Your task to perform on an android device: empty trash in the gmail app Image 0: 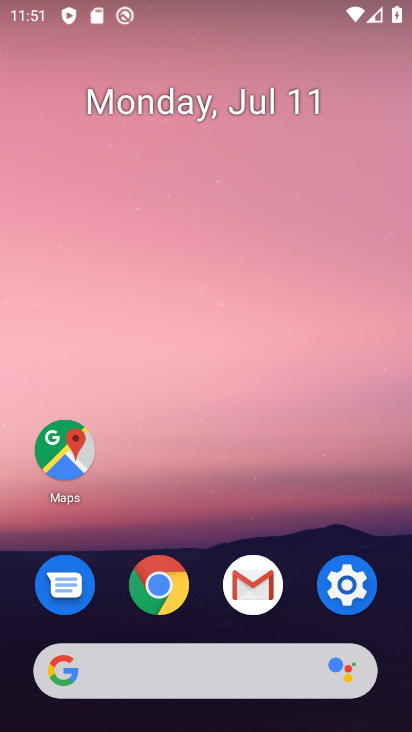
Step 0: click (273, 591)
Your task to perform on an android device: empty trash in the gmail app Image 1: 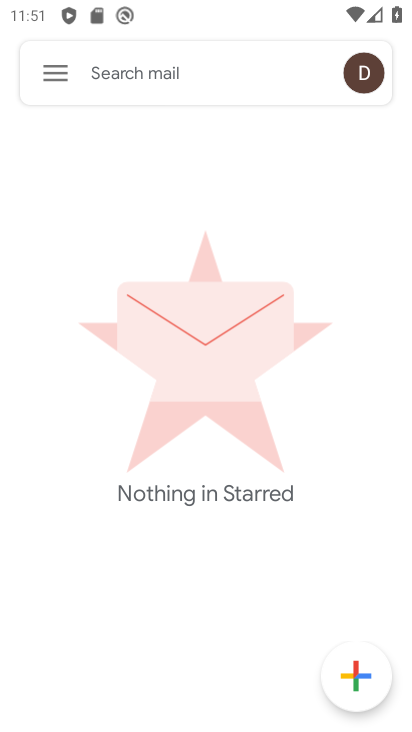
Step 1: click (58, 87)
Your task to perform on an android device: empty trash in the gmail app Image 2: 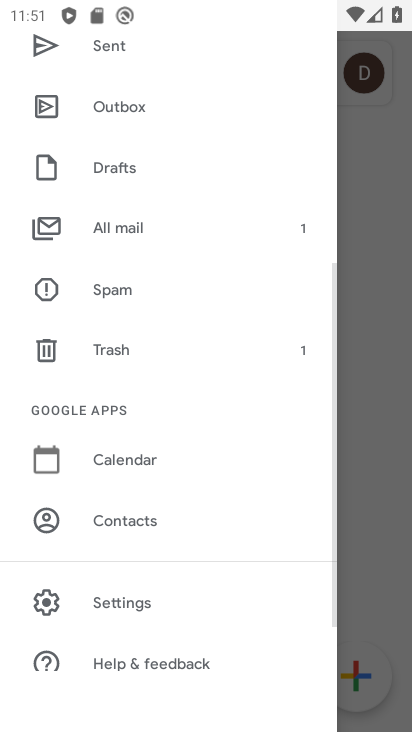
Step 2: click (128, 346)
Your task to perform on an android device: empty trash in the gmail app Image 3: 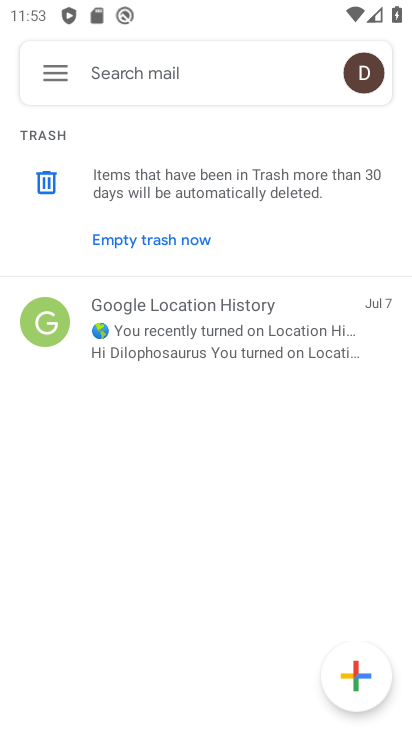
Step 3: task complete